Your task to perform on an android device: Open Google Image 0: 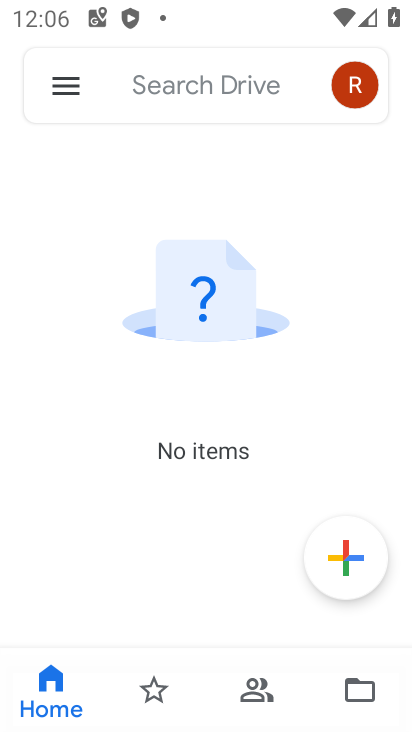
Step 0: press back button
Your task to perform on an android device: Open Google Image 1: 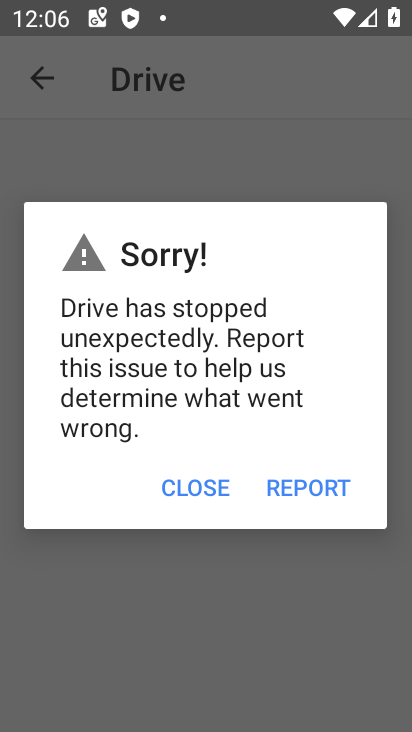
Step 1: press home button
Your task to perform on an android device: Open Google Image 2: 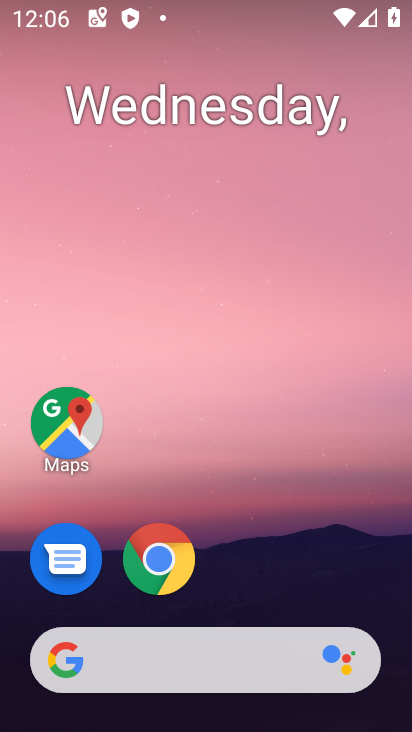
Step 2: drag from (283, 600) to (319, 20)
Your task to perform on an android device: Open Google Image 3: 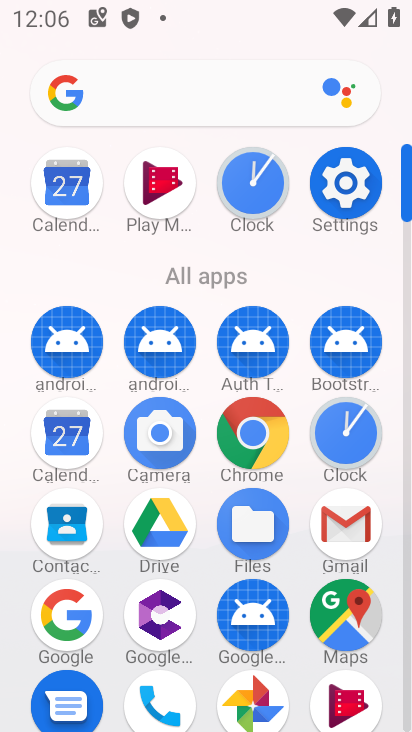
Step 3: click (56, 635)
Your task to perform on an android device: Open Google Image 4: 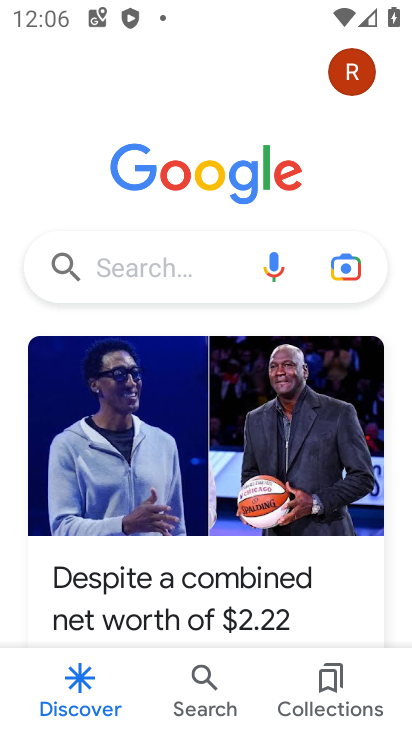
Step 4: task complete